Your task to perform on an android device: Open Google Chrome Image 0: 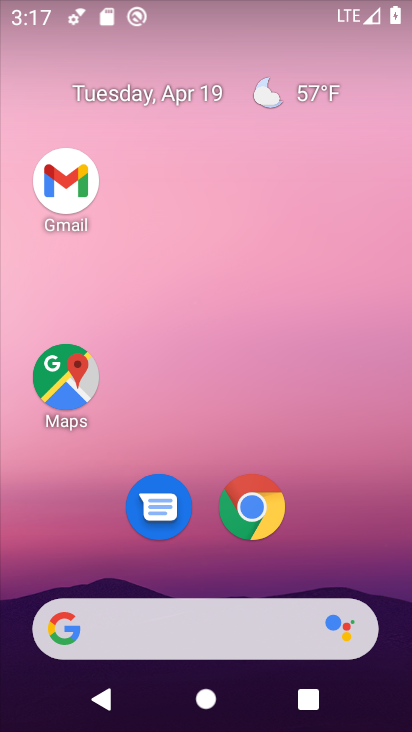
Step 0: click (250, 489)
Your task to perform on an android device: Open Google Chrome Image 1: 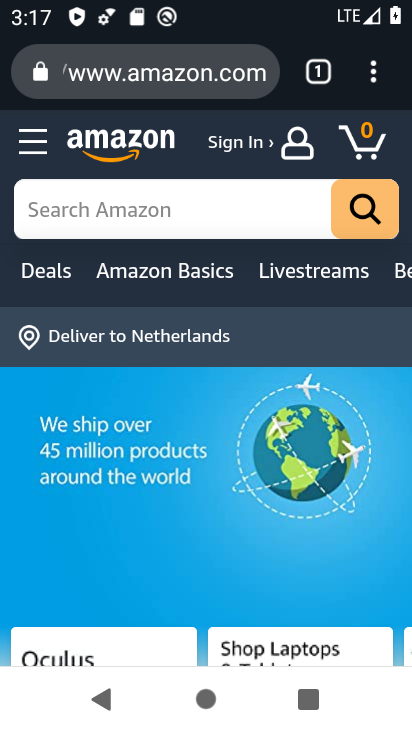
Step 1: task complete